Your task to perform on an android device: turn smart compose on in the gmail app Image 0: 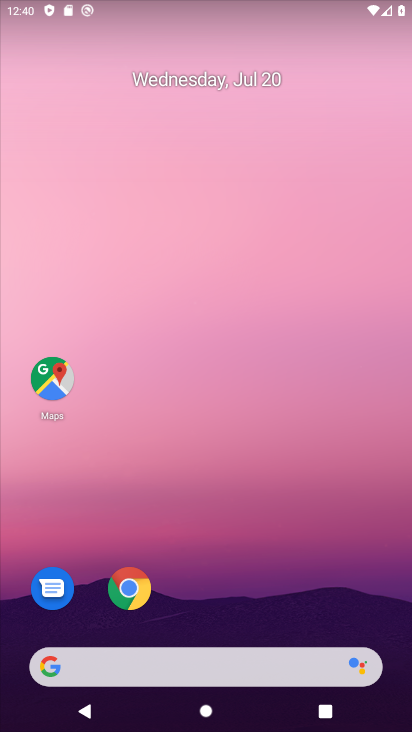
Step 0: drag from (30, 557) to (226, 102)
Your task to perform on an android device: turn smart compose on in the gmail app Image 1: 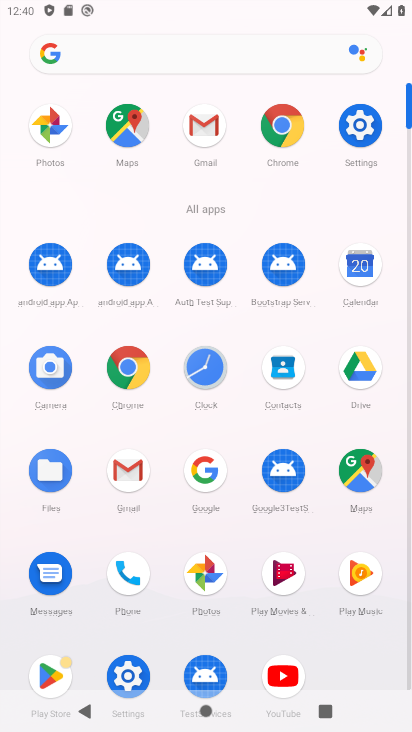
Step 1: click (209, 115)
Your task to perform on an android device: turn smart compose on in the gmail app Image 2: 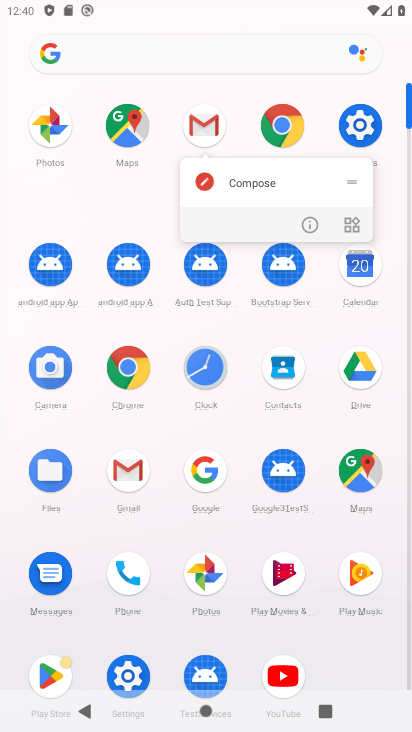
Step 2: click (199, 134)
Your task to perform on an android device: turn smart compose on in the gmail app Image 3: 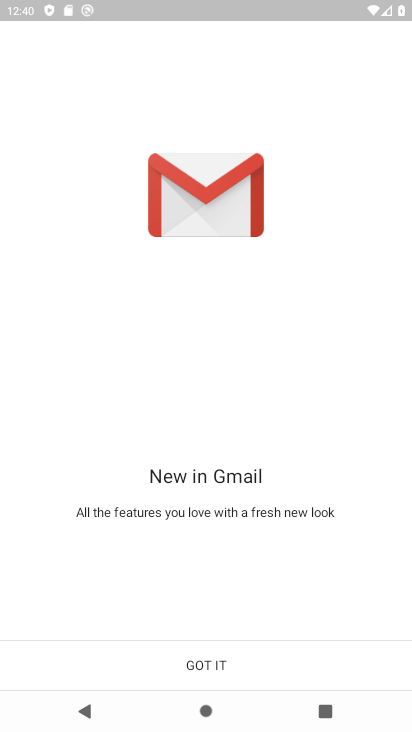
Step 3: click (190, 650)
Your task to perform on an android device: turn smart compose on in the gmail app Image 4: 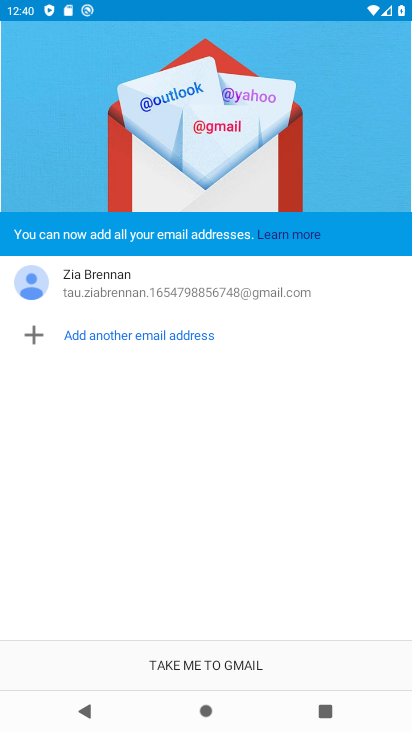
Step 4: click (188, 651)
Your task to perform on an android device: turn smart compose on in the gmail app Image 5: 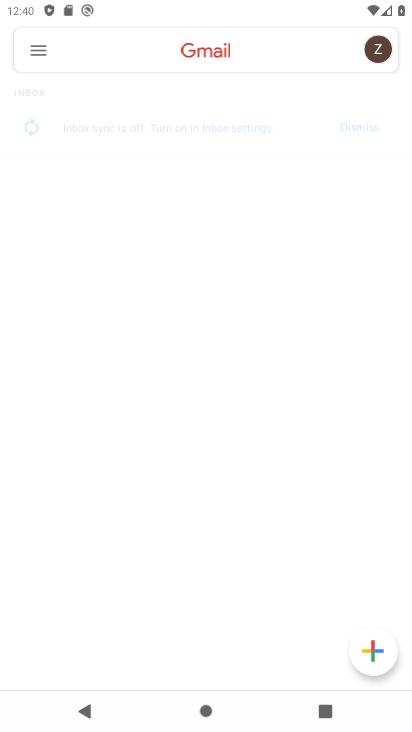
Step 5: click (33, 46)
Your task to perform on an android device: turn smart compose on in the gmail app Image 6: 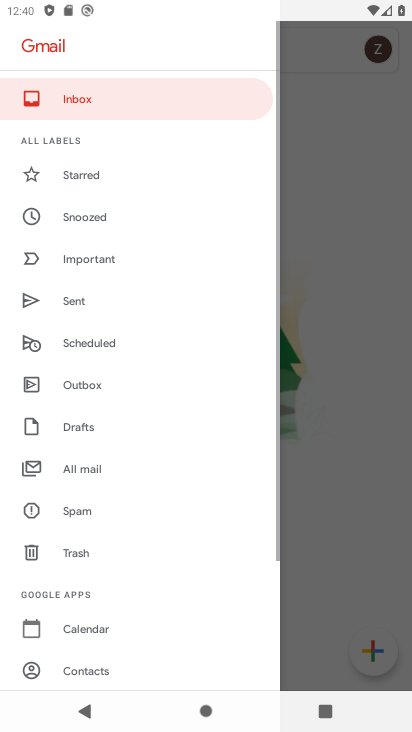
Step 6: drag from (56, 650) to (203, 137)
Your task to perform on an android device: turn smart compose on in the gmail app Image 7: 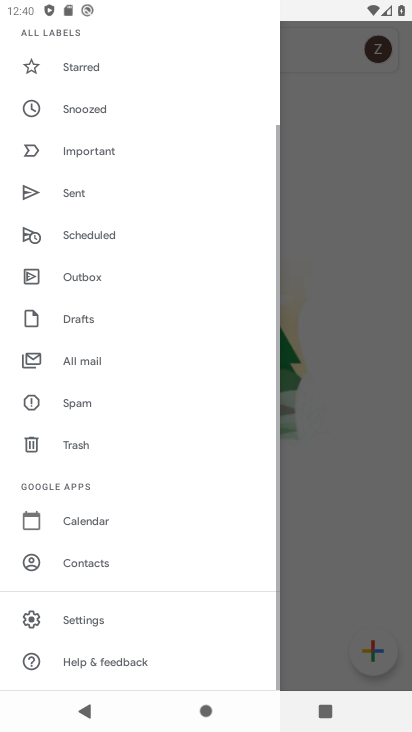
Step 7: click (53, 620)
Your task to perform on an android device: turn smart compose on in the gmail app Image 8: 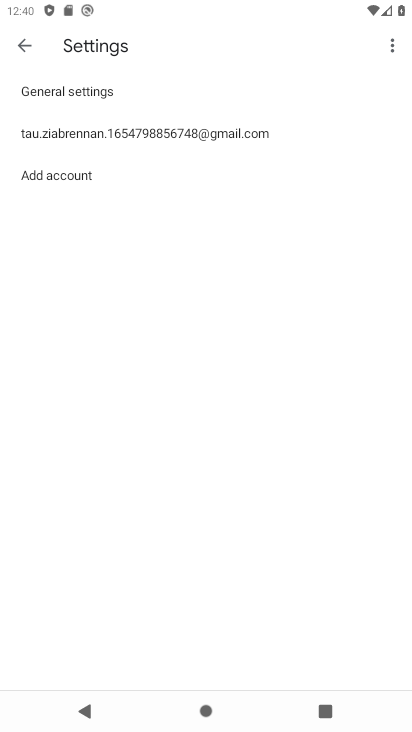
Step 8: click (176, 128)
Your task to perform on an android device: turn smart compose on in the gmail app Image 9: 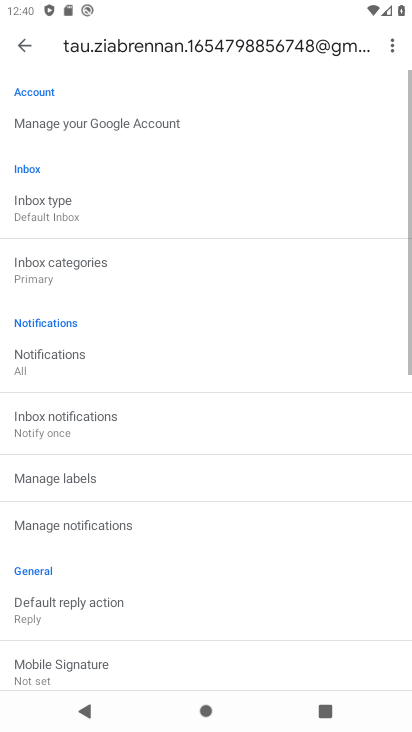
Step 9: drag from (35, 473) to (246, 129)
Your task to perform on an android device: turn smart compose on in the gmail app Image 10: 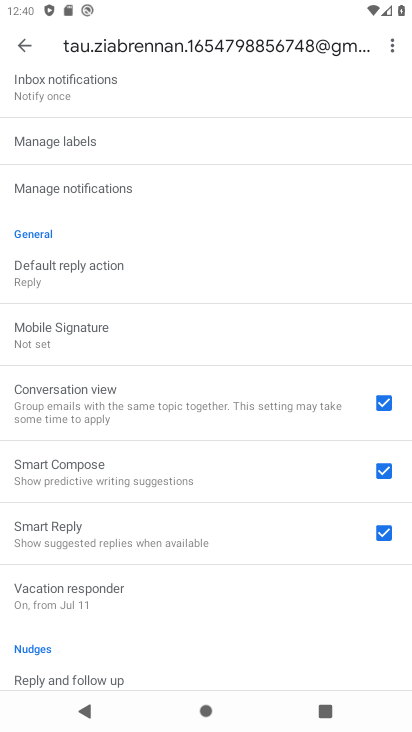
Step 10: click (383, 477)
Your task to perform on an android device: turn smart compose on in the gmail app Image 11: 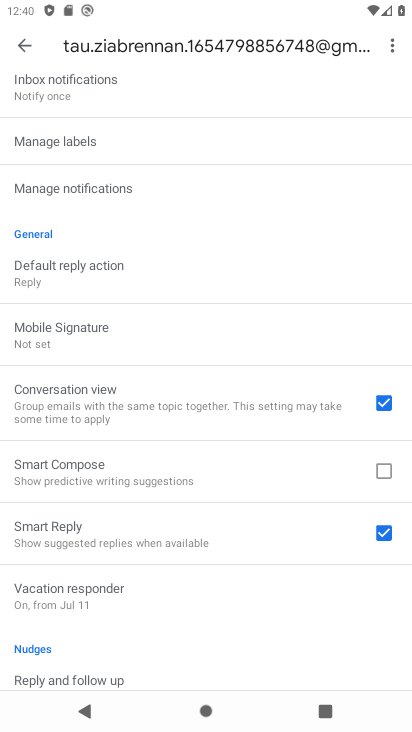
Step 11: click (381, 469)
Your task to perform on an android device: turn smart compose on in the gmail app Image 12: 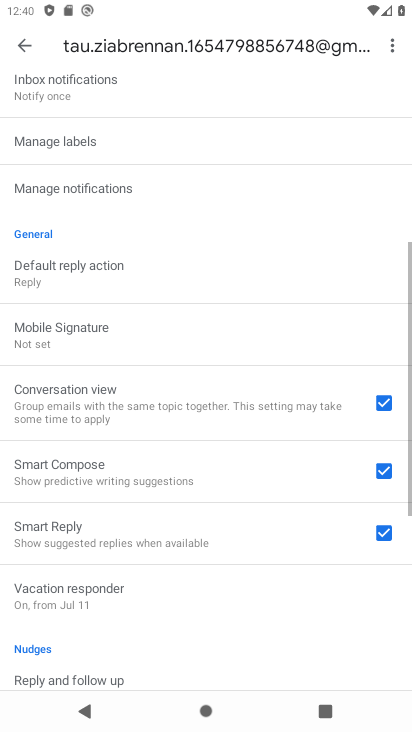
Step 12: task complete